Your task to perform on an android device: turn off sleep mode Image 0: 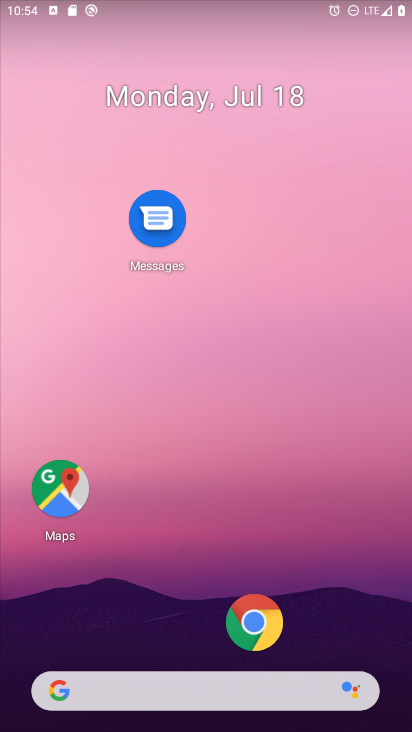
Step 0: drag from (175, 566) to (317, 109)
Your task to perform on an android device: turn off sleep mode Image 1: 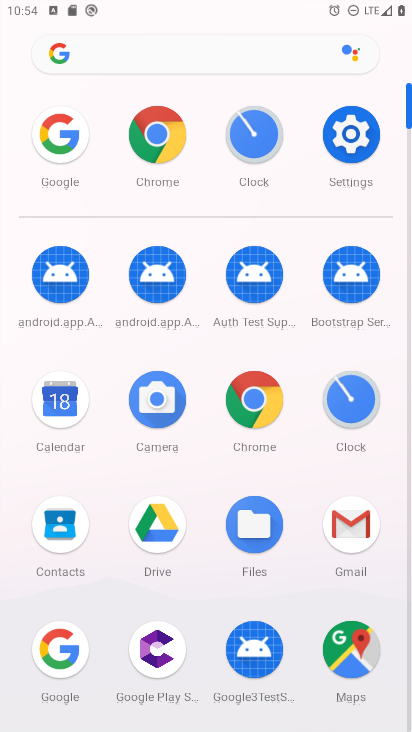
Step 1: click (344, 137)
Your task to perform on an android device: turn off sleep mode Image 2: 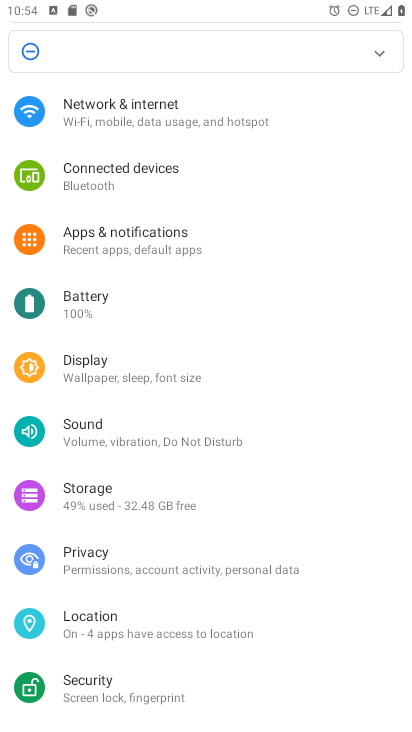
Step 2: click (137, 367)
Your task to perform on an android device: turn off sleep mode Image 3: 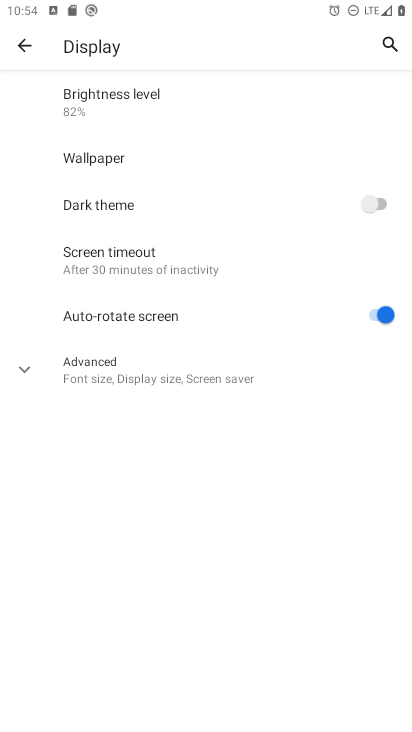
Step 3: click (146, 374)
Your task to perform on an android device: turn off sleep mode Image 4: 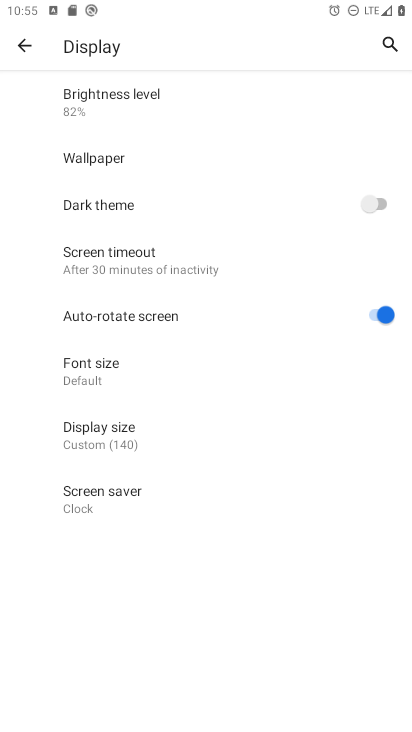
Step 4: task complete